Your task to perform on an android device: Go to display settings Image 0: 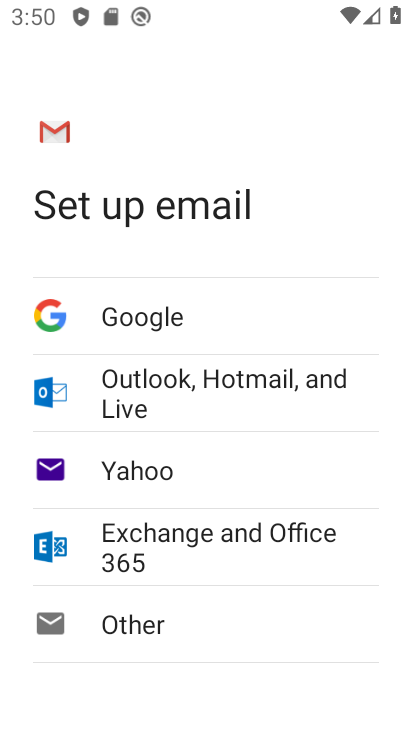
Step 0: press home button
Your task to perform on an android device: Go to display settings Image 1: 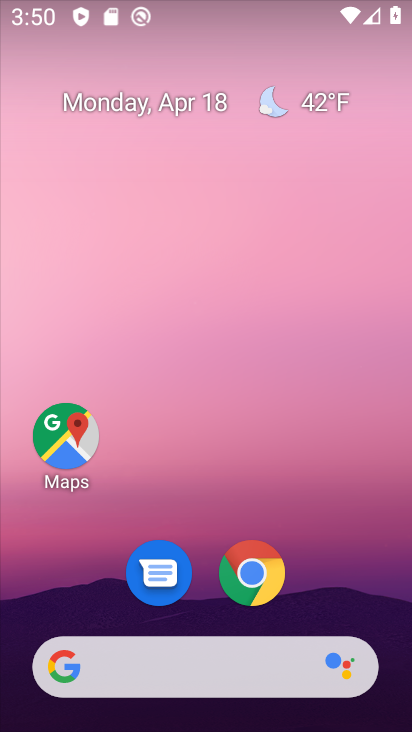
Step 1: drag from (193, 630) to (237, 129)
Your task to perform on an android device: Go to display settings Image 2: 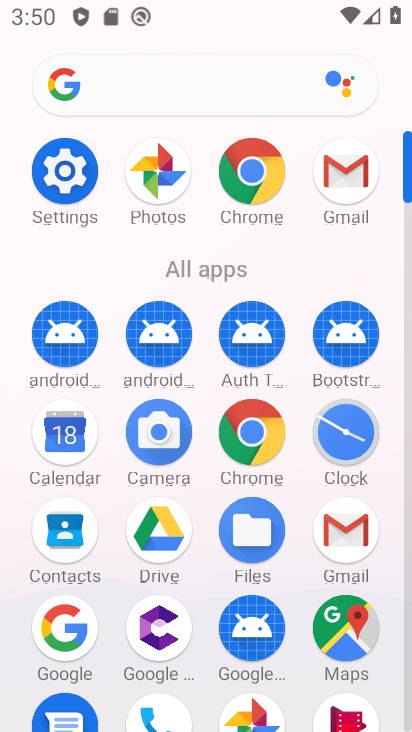
Step 2: click (71, 160)
Your task to perform on an android device: Go to display settings Image 3: 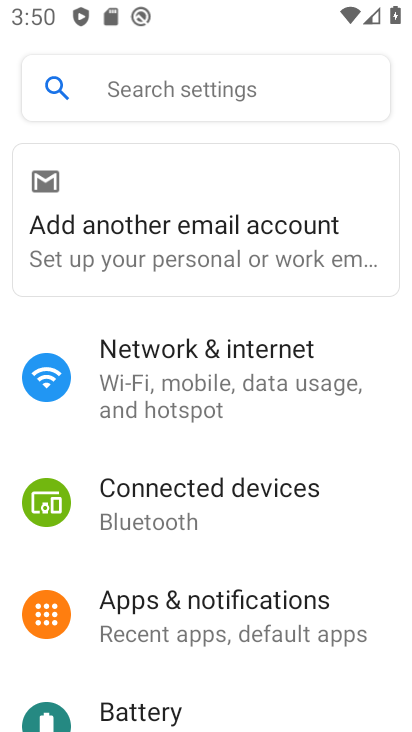
Step 3: drag from (221, 688) to (208, 326)
Your task to perform on an android device: Go to display settings Image 4: 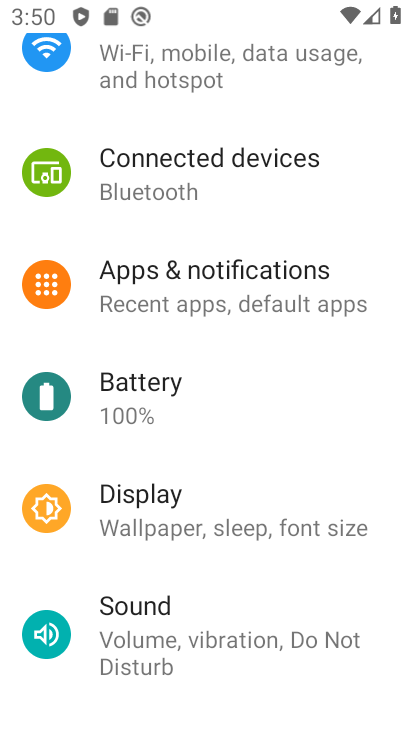
Step 4: click (178, 517)
Your task to perform on an android device: Go to display settings Image 5: 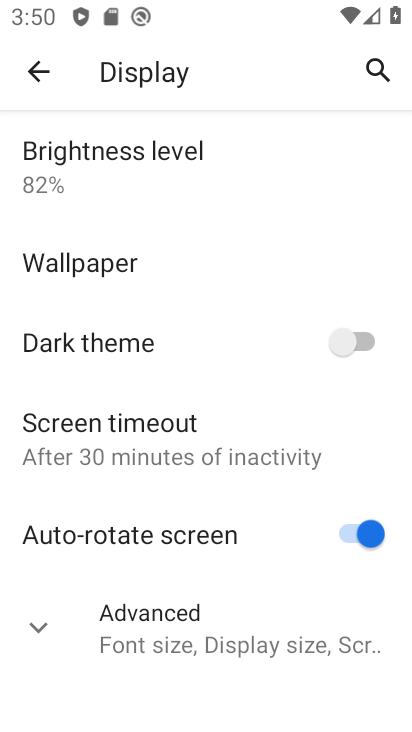
Step 5: drag from (167, 668) to (200, 326)
Your task to perform on an android device: Go to display settings Image 6: 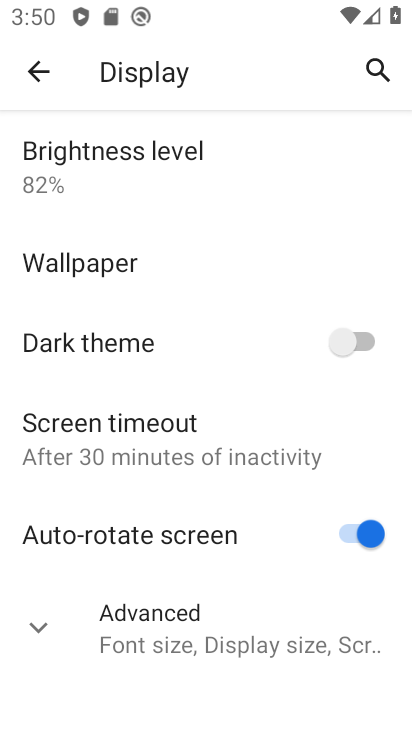
Step 6: click (205, 627)
Your task to perform on an android device: Go to display settings Image 7: 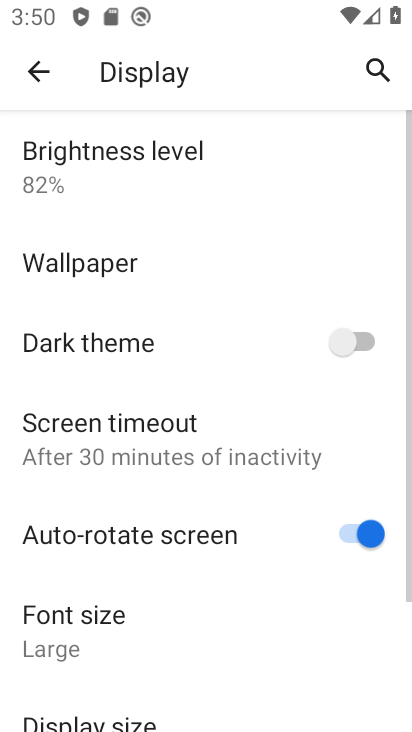
Step 7: task complete